Your task to perform on an android device: check battery use Image 0: 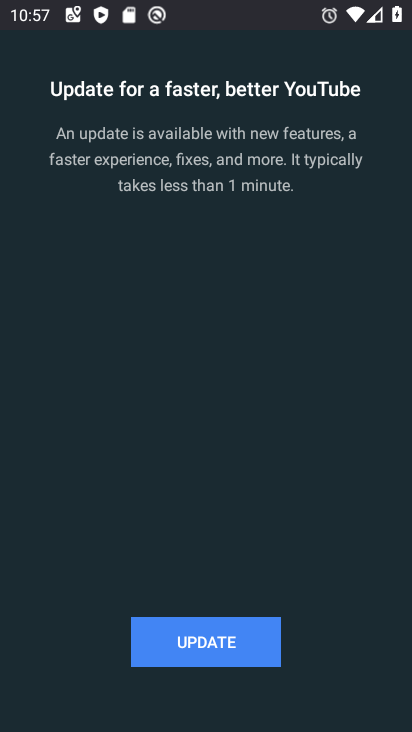
Step 0: press home button
Your task to perform on an android device: check battery use Image 1: 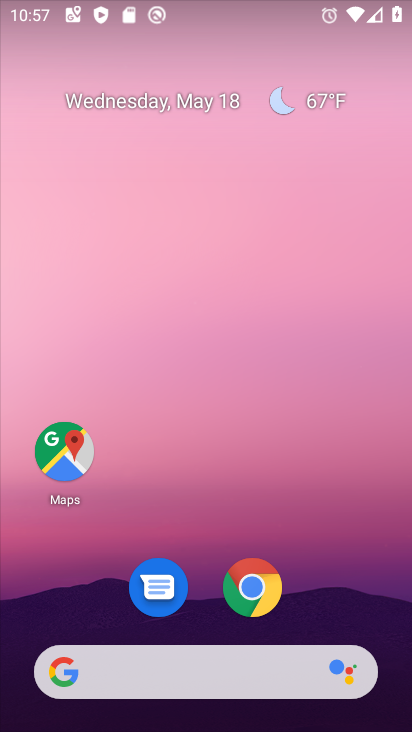
Step 1: drag from (342, 515) to (289, 2)
Your task to perform on an android device: check battery use Image 2: 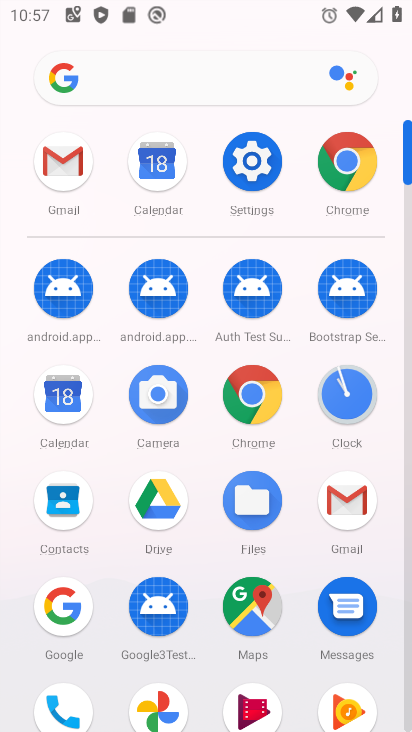
Step 2: click (269, 160)
Your task to perform on an android device: check battery use Image 3: 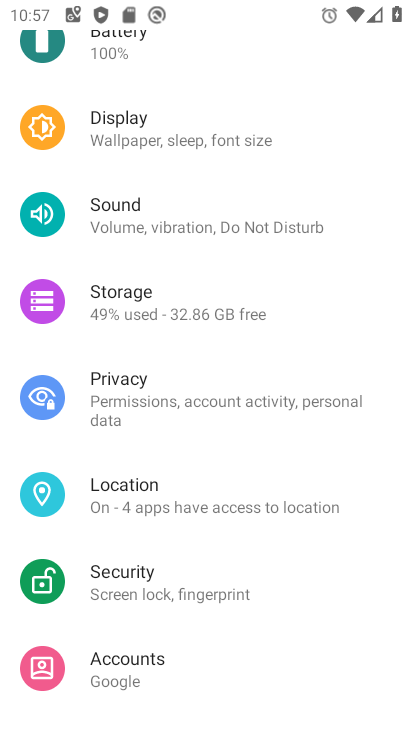
Step 3: drag from (206, 296) to (214, 572)
Your task to perform on an android device: check battery use Image 4: 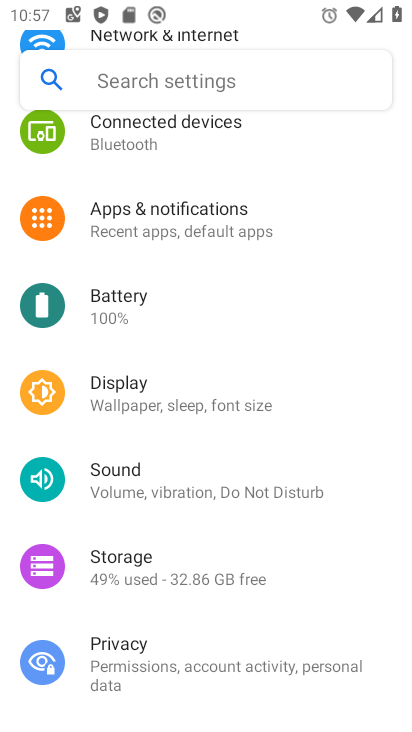
Step 4: click (191, 315)
Your task to perform on an android device: check battery use Image 5: 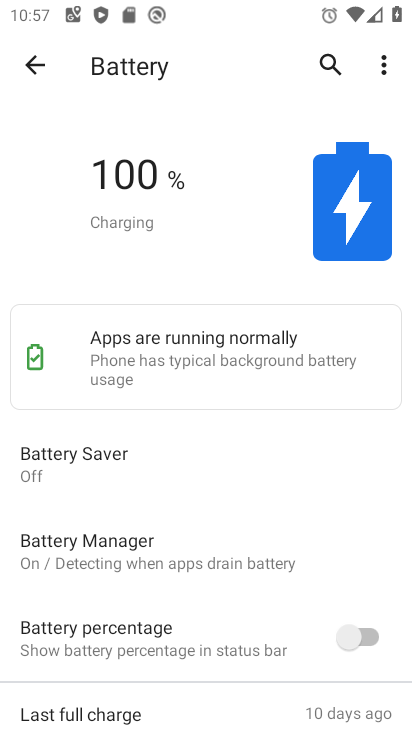
Step 5: task complete